Your task to perform on an android device: find snoozed emails in the gmail app Image 0: 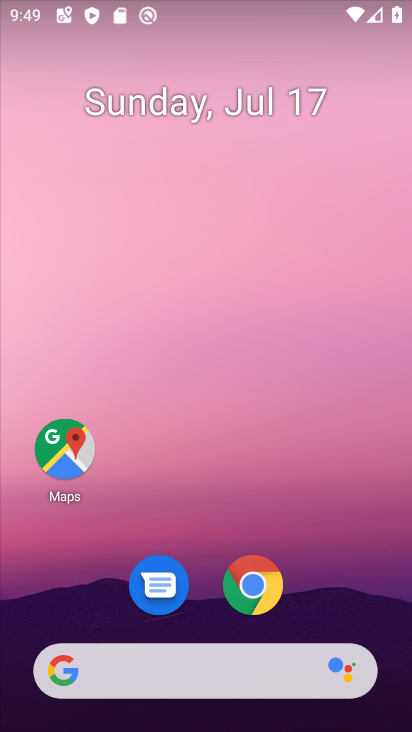
Step 0: drag from (340, 573) to (282, 48)
Your task to perform on an android device: find snoozed emails in the gmail app Image 1: 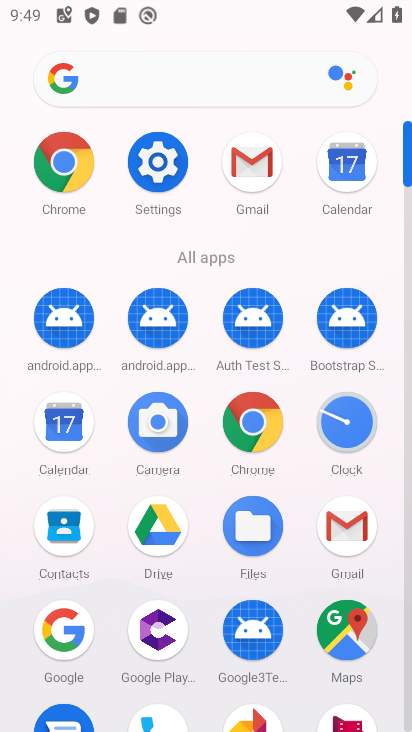
Step 1: click (265, 164)
Your task to perform on an android device: find snoozed emails in the gmail app Image 2: 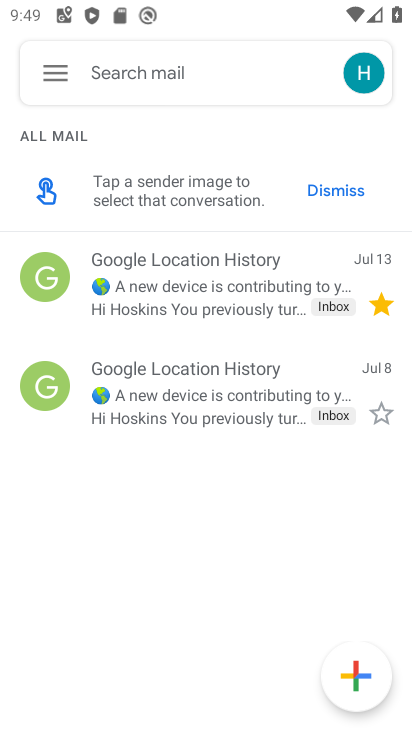
Step 2: click (56, 67)
Your task to perform on an android device: find snoozed emails in the gmail app Image 3: 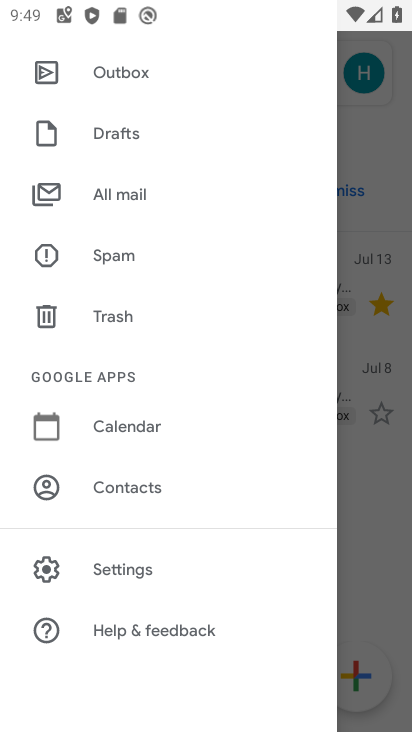
Step 3: drag from (160, 155) to (225, 690)
Your task to perform on an android device: find snoozed emails in the gmail app Image 4: 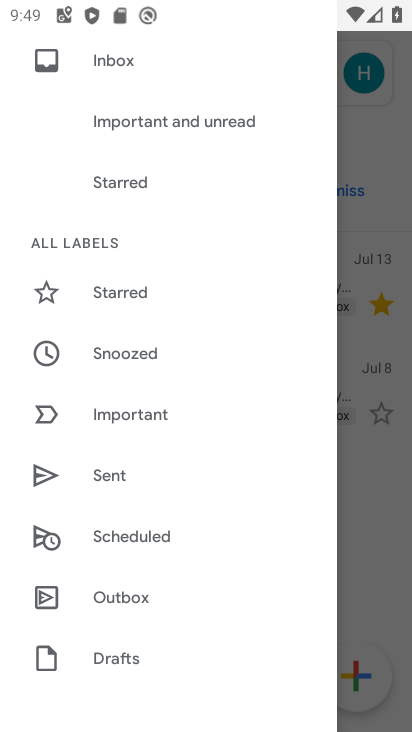
Step 4: click (154, 338)
Your task to perform on an android device: find snoozed emails in the gmail app Image 5: 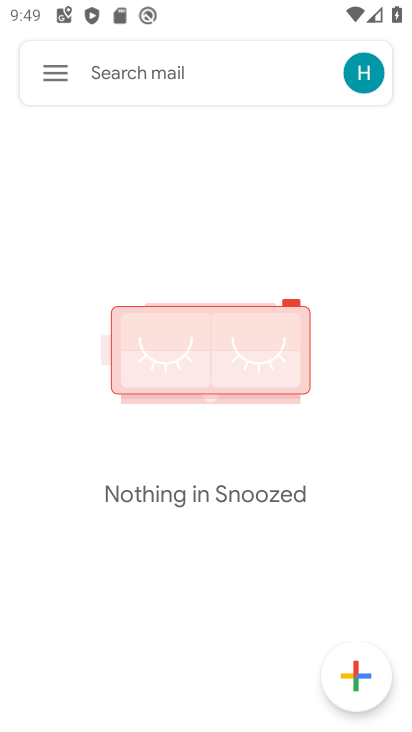
Step 5: task complete